Your task to perform on an android device: Go to Android settings Image 0: 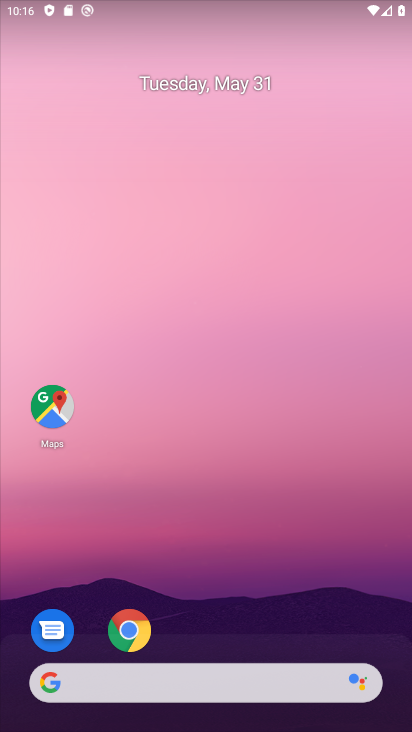
Step 0: drag from (206, 639) to (214, 403)
Your task to perform on an android device: Go to Android settings Image 1: 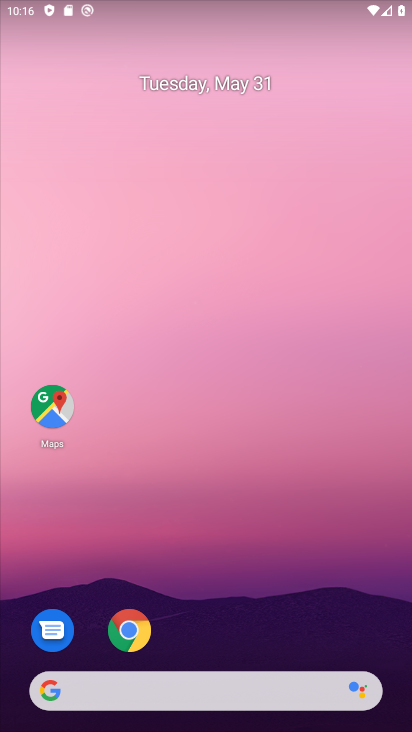
Step 1: drag from (213, 634) to (210, 188)
Your task to perform on an android device: Go to Android settings Image 2: 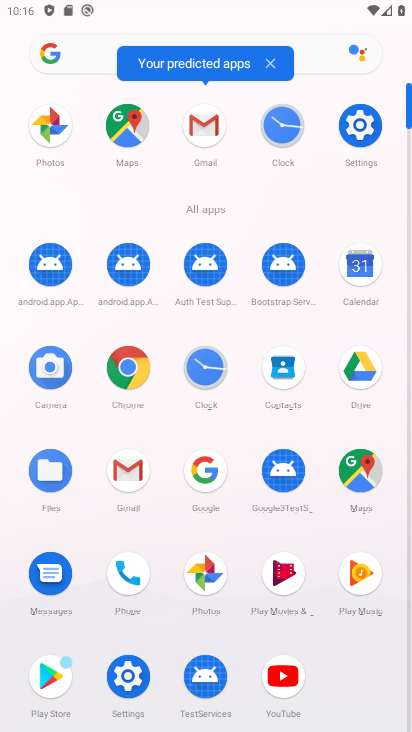
Step 2: click (371, 121)
Your task to perform on an android device: Go to Android settings Image 3: 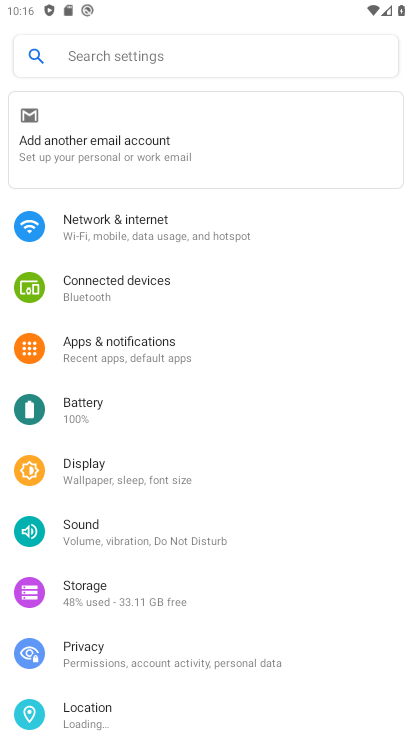
Step 3: drag from (148, 663) to (102, 266)
Your task to perform on an android device: Go to Android settings Image 4: 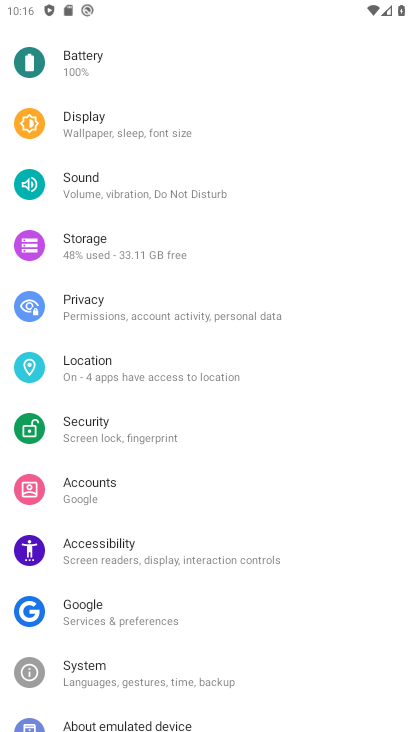
Step 4: drag from (108, 669) to (125, 202)
Your task to perform on an android device: Go to Android settings Image 5: 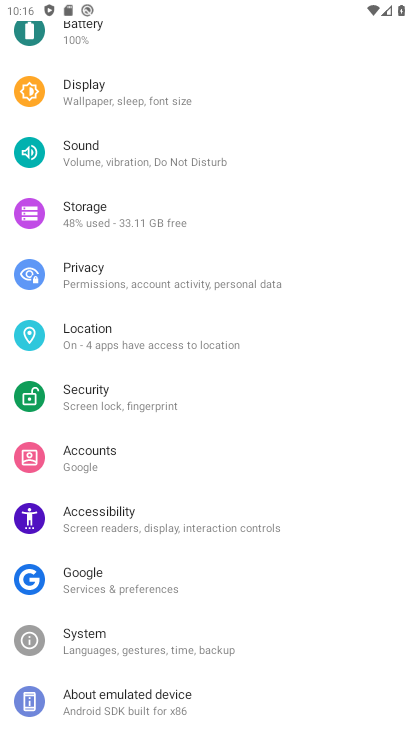
Step 5: click (101, 713)
Your task to perform on an android device: Go to Android settings Image 6: 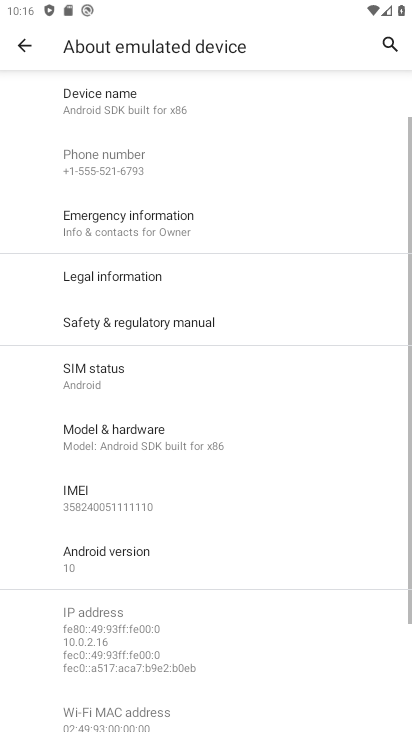
Step 6: drag from (187, 650) to (148, 364)
Your task to perform on an android device: Go to Android settings Image 7: 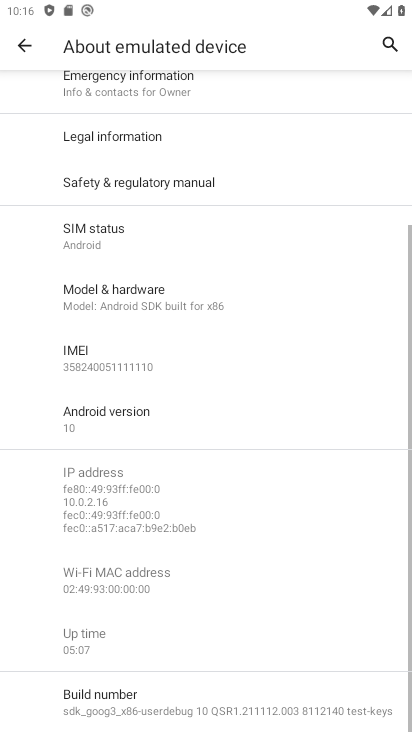
Step 7: click (119, 424)
Your task to perform on an android device: Go to Android settings Image 8: 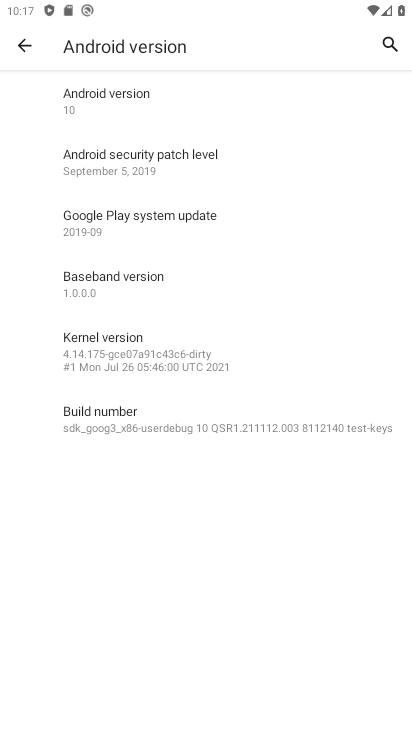
Step 8: task complete